Your task to perform on an android device: star an email in the gmail app Image 0: 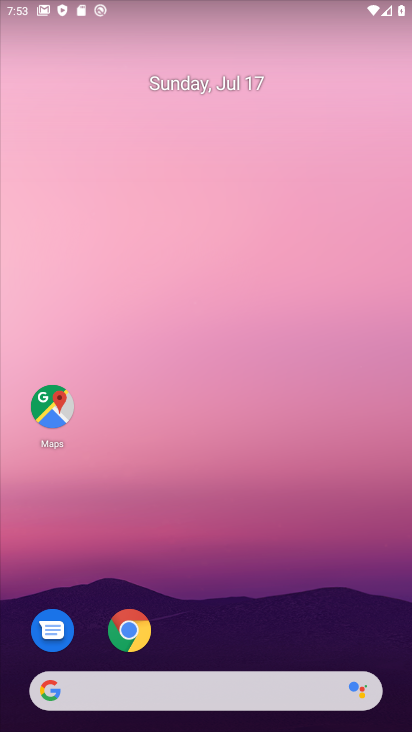
Step 0: drag from (334, 618) to (357, 107)
Your task to perform on an android device: star an email in the gmail app Image 1: 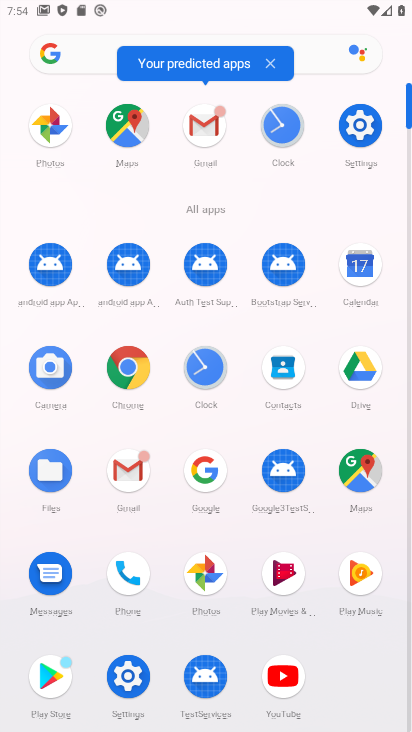
Step 1: click (126, 483)
Your task to perform on an android device: star an email in the gmail app Image 2: 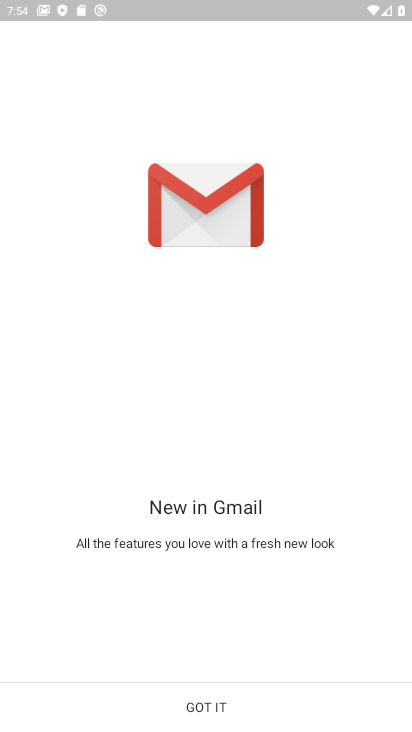
Step 2: click (218, 703)
Your task to perform on an android device: star an email in the gmail app Image 3: 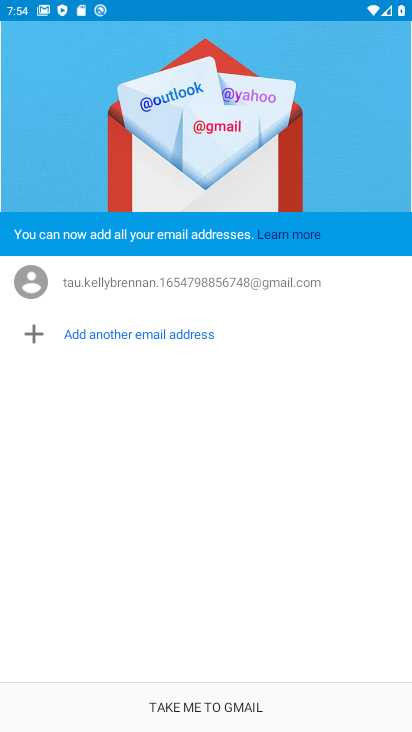
Step 3: click (218, 710)
Your task to perform on an android device: star an email in the gmail app Image 4: 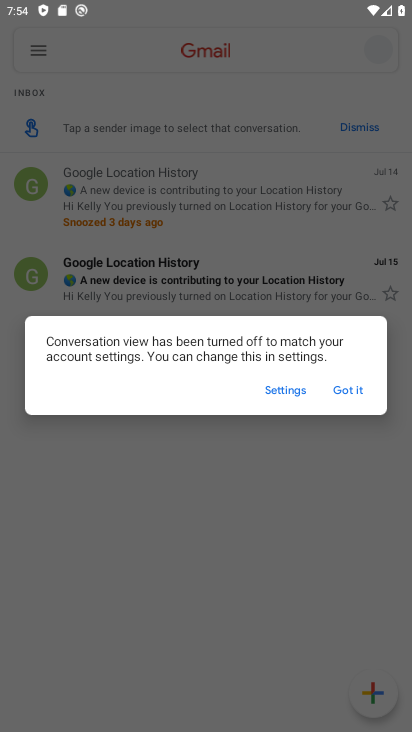
Step 4: click (344, 389)
Your task to perform on an android device: star an email in the gmail app Image 5: 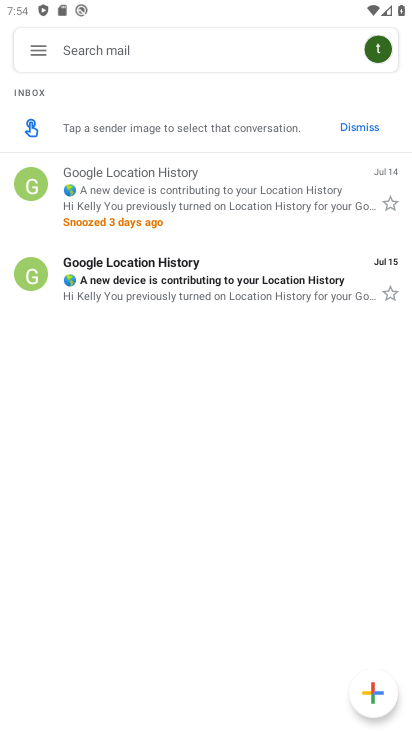
Step 5: click (393, 202)
Your task to perform on an android device: star an email in the gmail app Image 6: 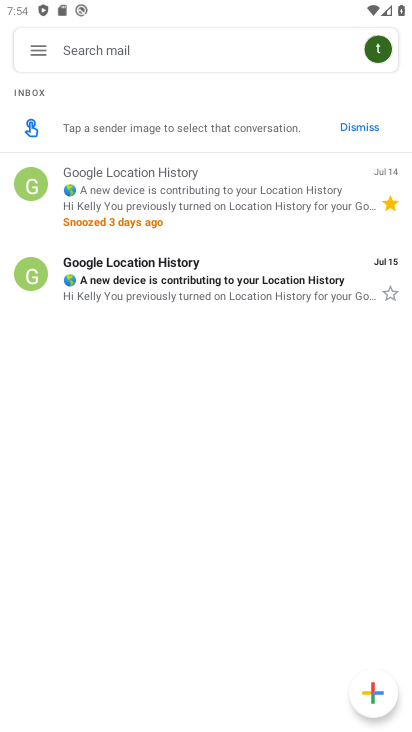
Step 6: task complete